Your task to perform on an android device: Go to Amazon Image 0: 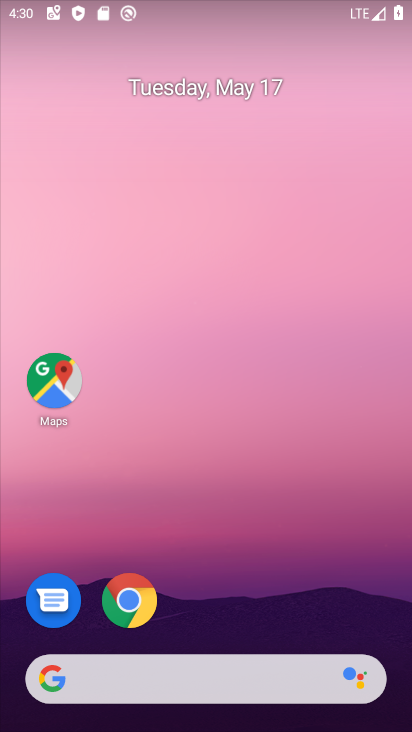
Step 0: click (128, 601)
Your task to perform on an android device: Go to Amazon Image 1: 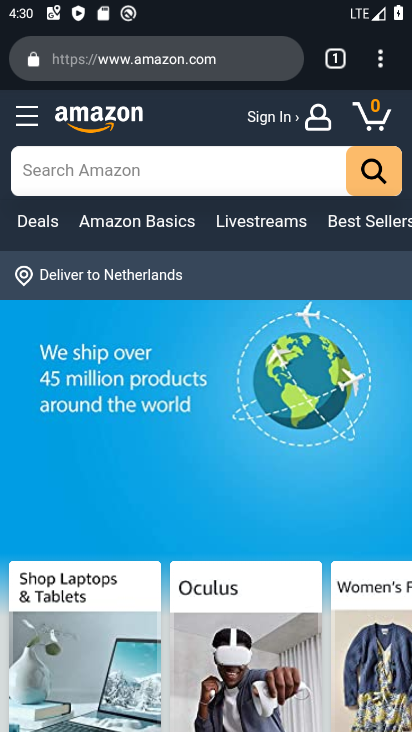
Step 1: task complete